Your task to perform on an android device: check google app version Image 0: 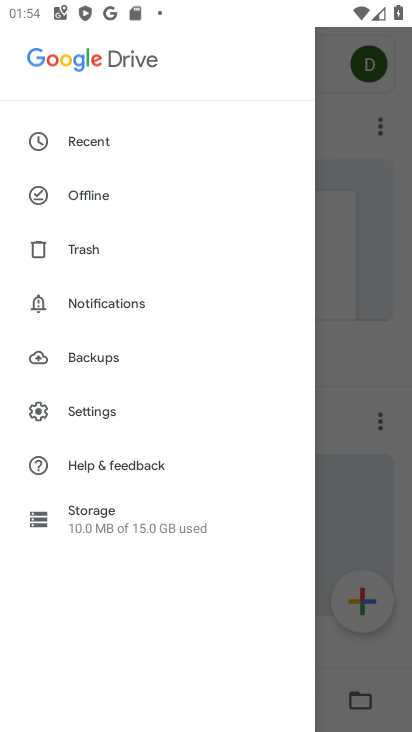
Step 0: press home button
Your task to perform on an android device: check google app version Image 1: 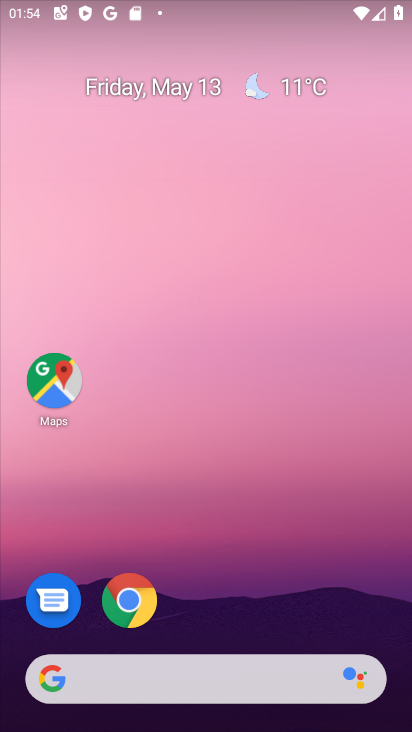
Step 1: drag from (205, 628) to (263, 57)
Your task to perform on an android device: check google app version Image 2: 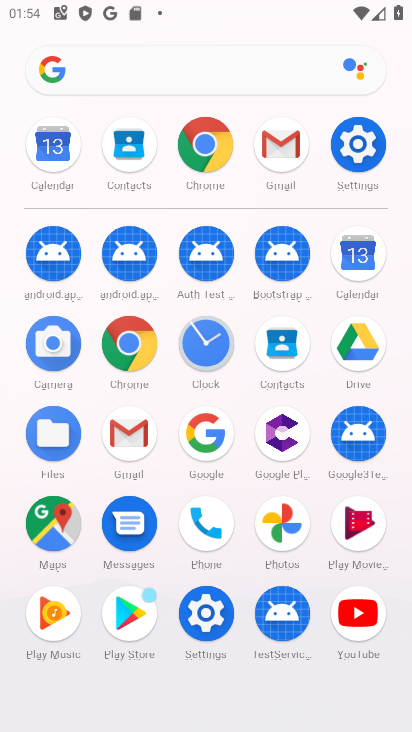
Step 2: click (207, 429)
Your task to perform on an android device: check google app version Image 3: 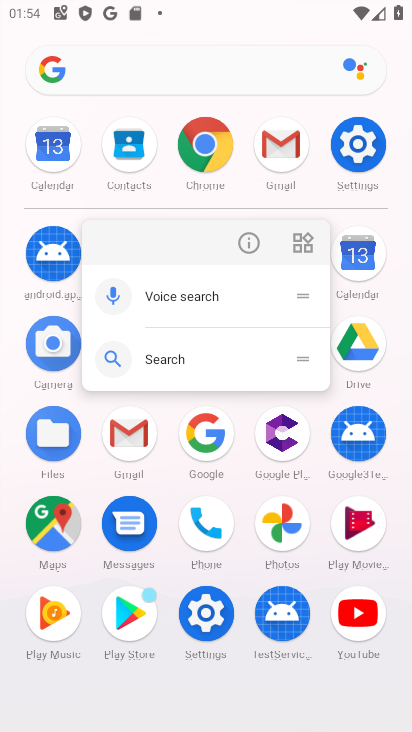
Step 3: click (253, 242)
Your task to perform on an android device: check google app version Image 4: 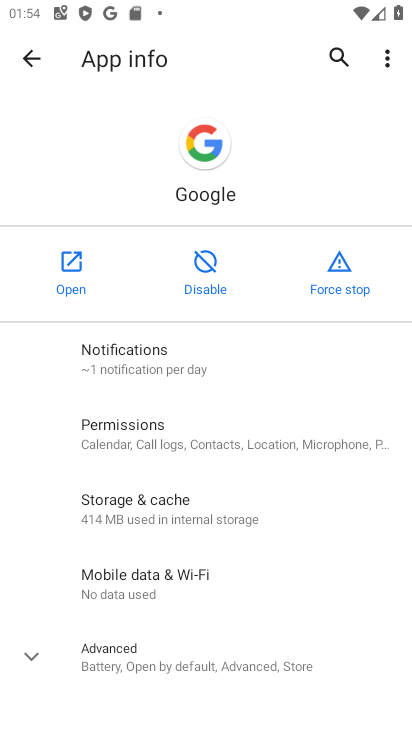
Step 4: click (62, 306)
Your task to perform on an android device: check google app version Image 5: 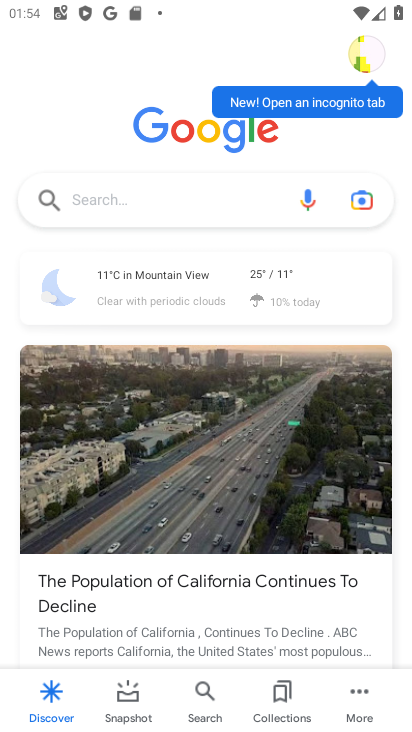
Step 5: click (368, 697)
Your task to perform on an android device: check google app version Image 6: 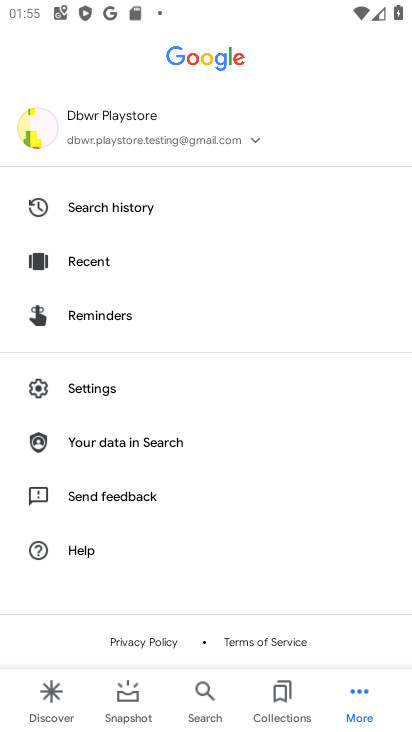
Step 6: click (130, 395)
Your task to perform on an android device: check google app version Image 7: 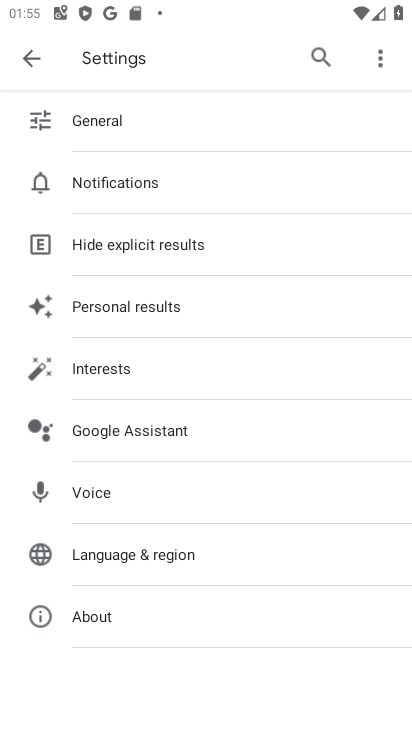
Step 7: click (117, 632)
Your task to perform on an android device: check google app version Image 8: 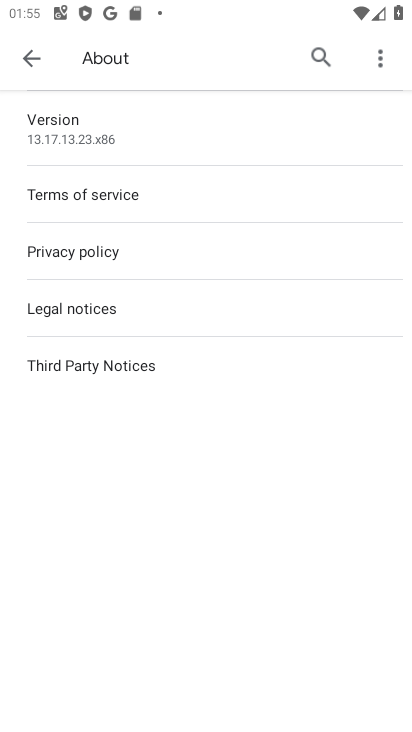
Step 8: click (129, 147)
Your task to perform on an android device: check google app version Image 9: 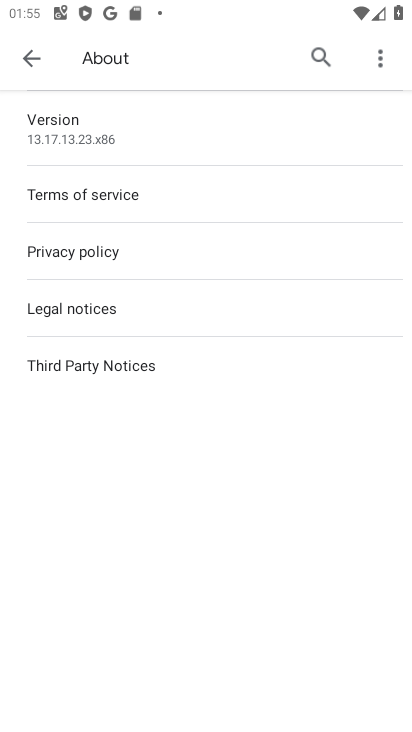
Step 9: task complete